Your task to perform on an android device: turn vacation reply on in the gmail app Image 0: 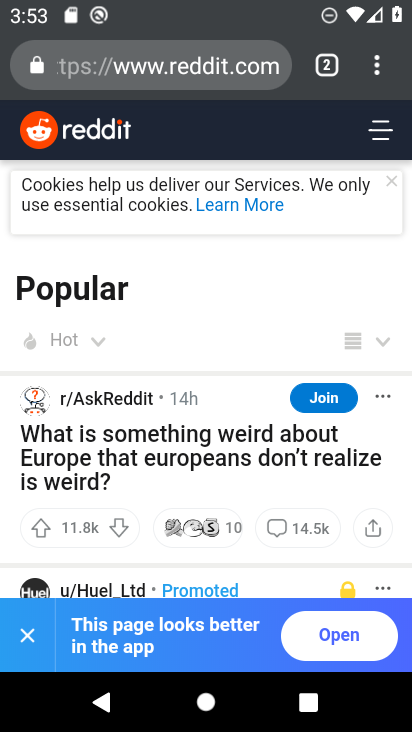
Step 0: press home button
Your task to perform on an android device: turn vacation reply on in the gmail app Image 1: 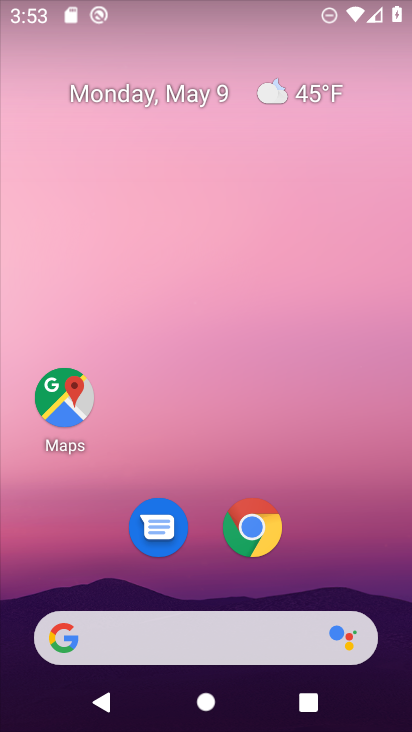
Step 1: drag from (342, 561) to (96, 2)
Your task to perform on an android device: turn vacation reply on in the gmail app Image 2: 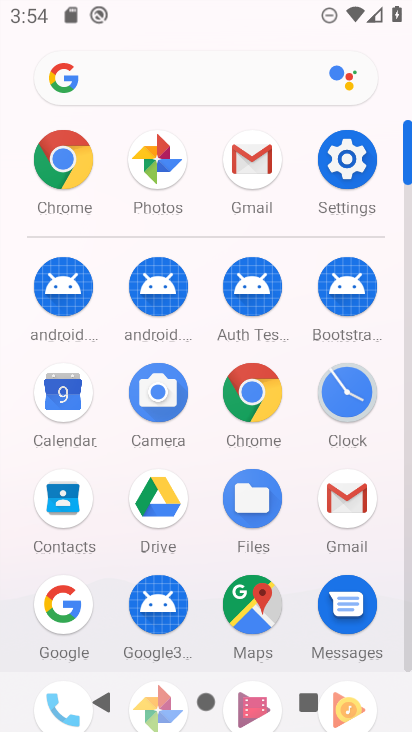
Step 2: click (266, 161)
Your task to perform on an android device: turn vacation reply on in the gmail app Image 3: 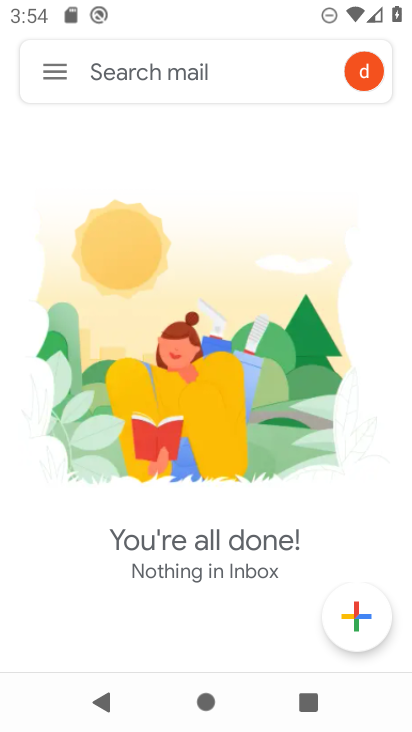
Step 3: click (62, 72)
Your task to perform on an android device: turn vacation reply on in the gmail app Image 4: 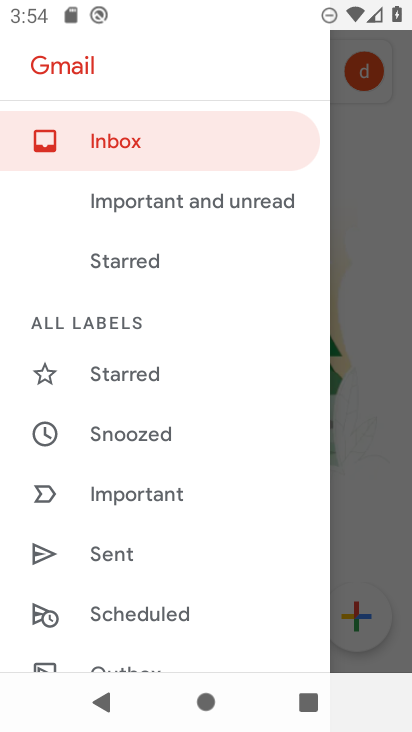
Step 4: drag from (253, 647) to (207, 161)
Your task to perform on an android device: turn vacation reply on in the gmail app Image 5: 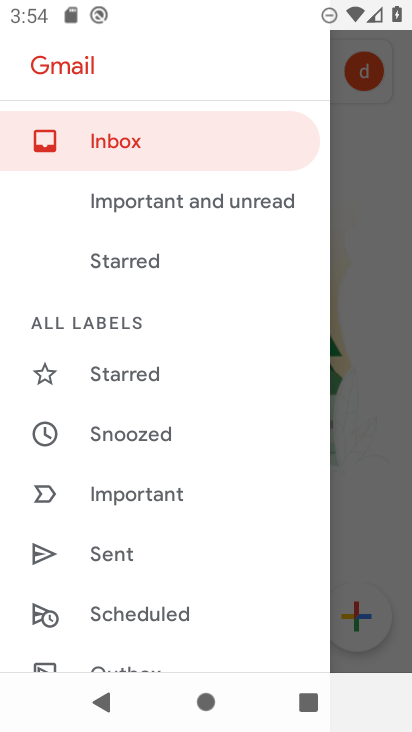
Step 5: drag from (215, 621) to (274, 103)
Your task to perform on an android device: turn vacation reply on in the gmail app Image 6: 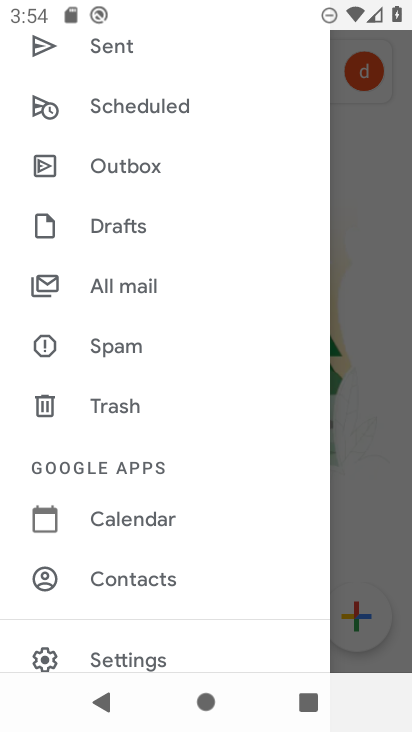
Step 6: drag from (219, 608) to (226, 224)
Your task to perform on an android device: turn vacation reply on in the gmail app Image 7: 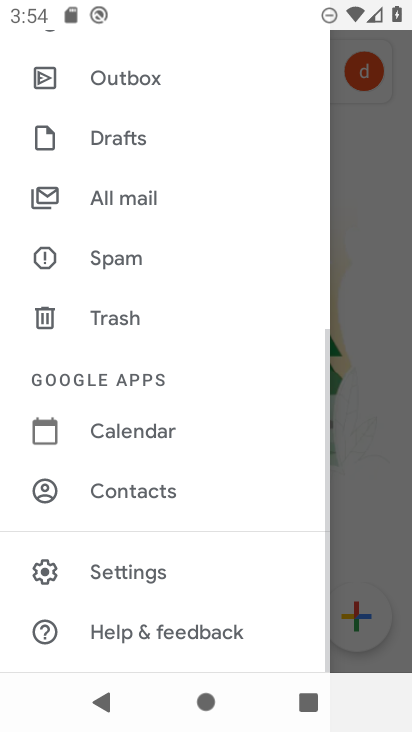
Step 7: click (231, 573)
Your task to perform on an android device: turn vacation reply on in the gmail app Image 8: 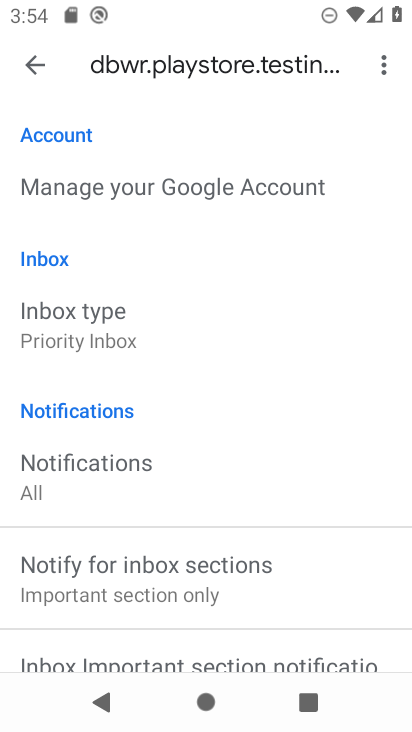
Step 8: drag from (237, 569) to (288, 590)
Your task to perform on an android device: turn vacation reply on in the gmail app Image 9: 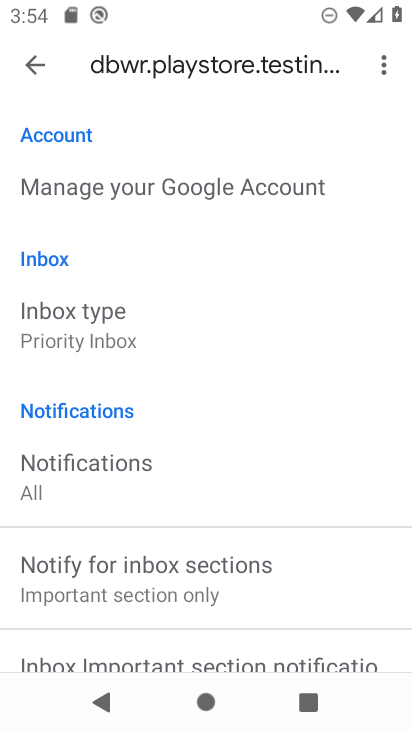
Step 9: drag from (241, 534) to (238, 153)
Your task to perform on an android device: turn vacation reply on in the gmail app Image 10: 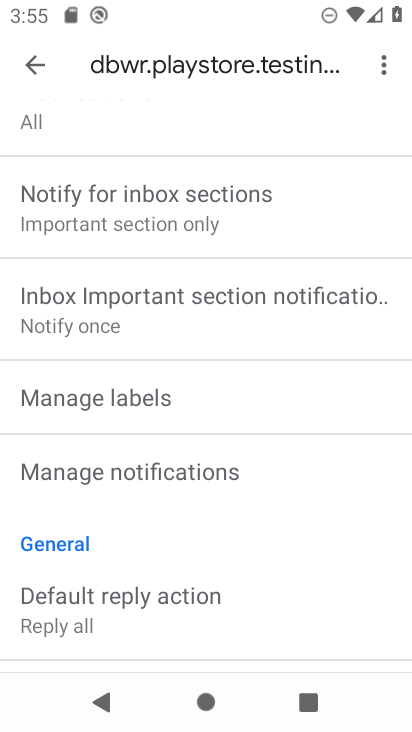
Step 10: drag from (312, 629) to (235, 186)
Your task to perform on an android device: turn vacation reply on in the gmail app Image 11: 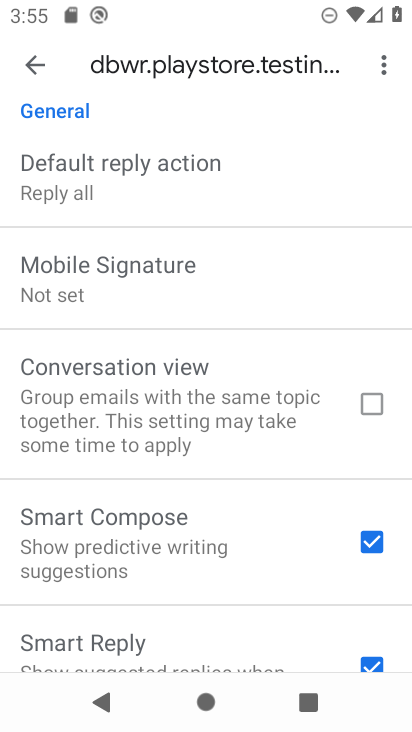
Step 11: drag from (249, 485) to (211, 199)
Your task to perform on an android device: turn vacation reply on in the gmail app Image 12: 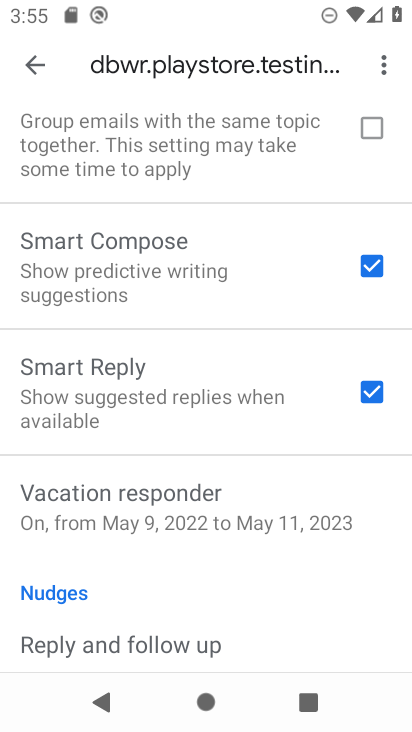
Step 12: click (199, 510)
Your task to perform on an android device: turn vacation reply on in the gmail app Image 13: 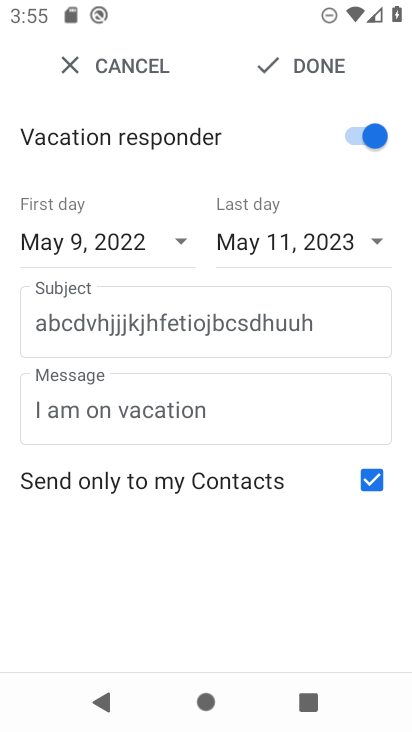
Step 13: click (328, 69)
Your task to perform on an android device: turn vacation reply on in the gmail app Image 14: 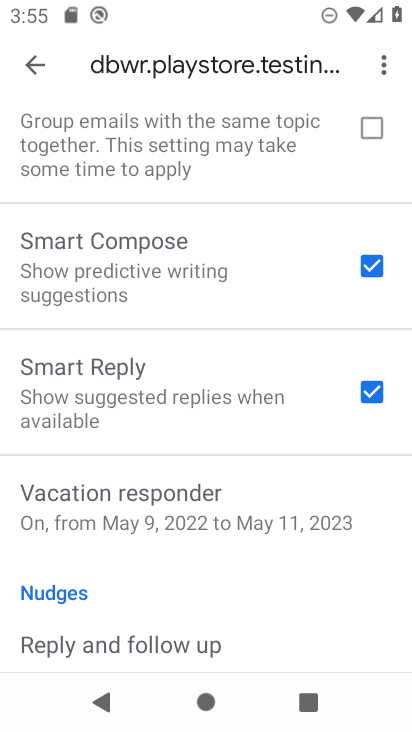
Step 14: task complete